Your task to perform on an android device: Turn on the flashlight Image 0: 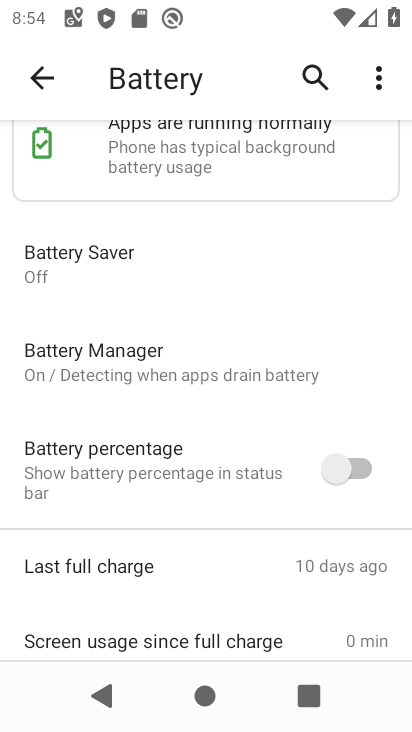
Step 0: press home button
Your task to perform on an android device: Turn on the flashlight Image 1: 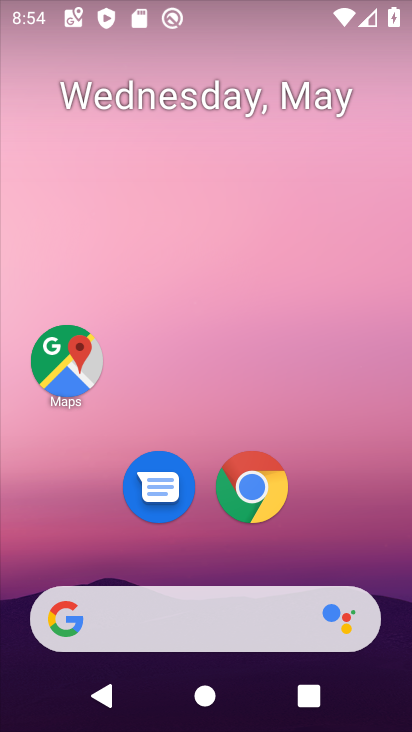
Step 1: drag from (330, 531) to (196, 131)
Your task to perform on an android device: Turn on the flashlight Image 2: 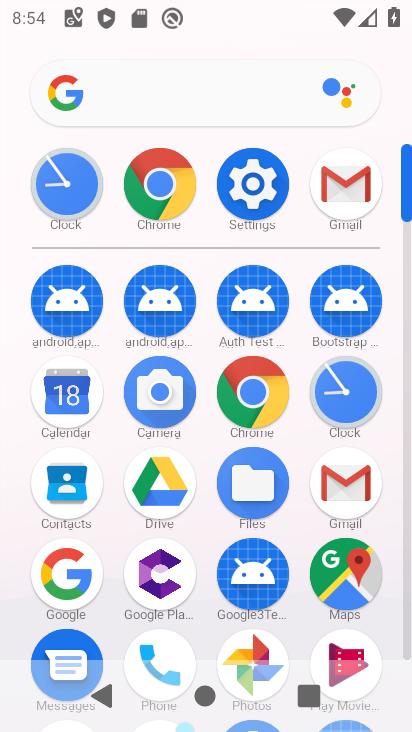
Step 2: click (240, 166)
Your task to perform on an android device: Turn on the flashlight Image 3: 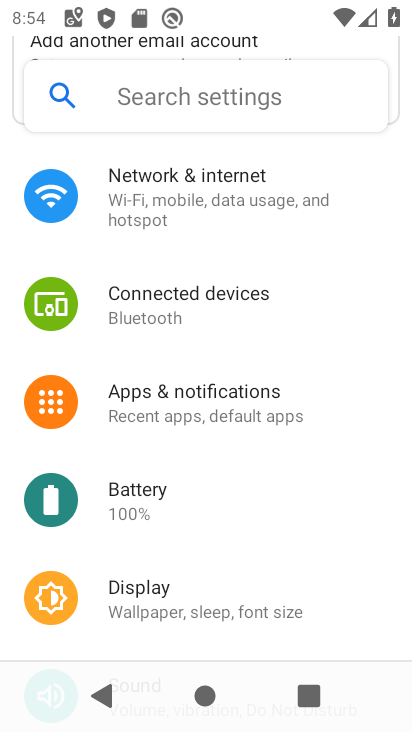
Step 3: click (201, 381)
Your task to perform on an android device: Turn on the flashlight Image 4: 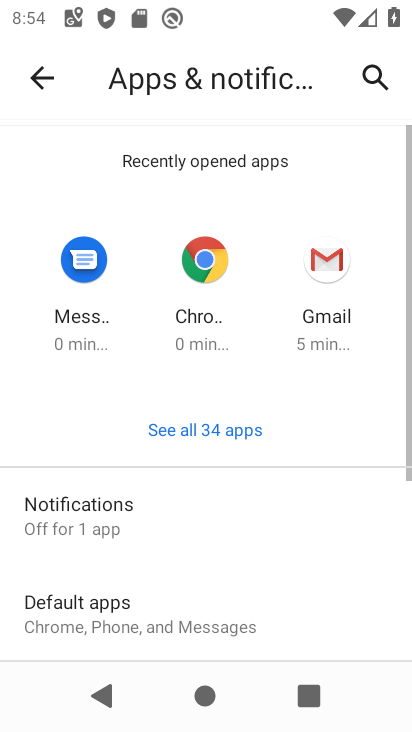
Step 4: task complete